Your task to perform on an android device: Open network settings Image 0: 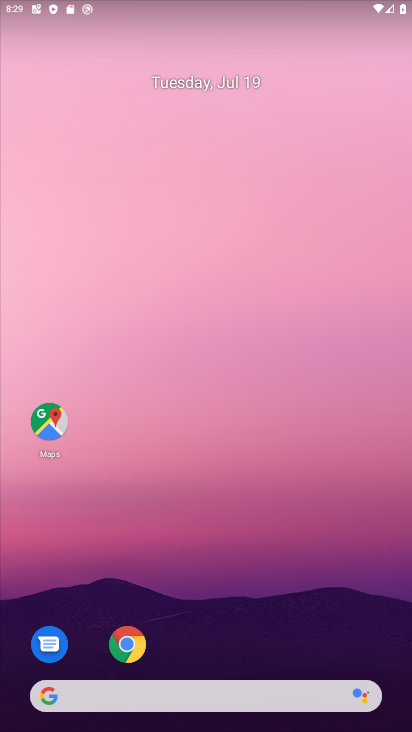
Step 0: press home button
Your task to perform on an android device: Open network settings Image 1: 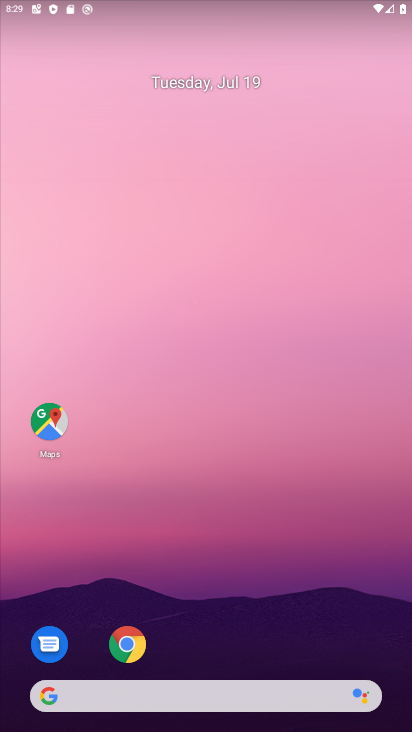
Step 1: click (232, 269)
Your task to perform on an android device: Open network settings Image 2: 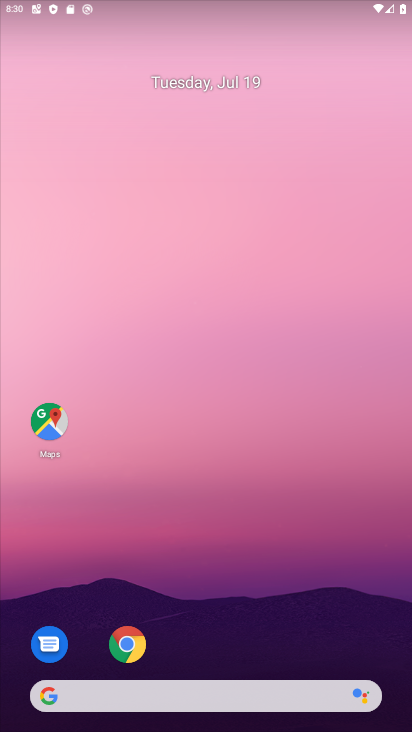
Step 2: drag from (189, 622) to (211, 323)
Your task to perform on an android device: Open network settings Image 3: 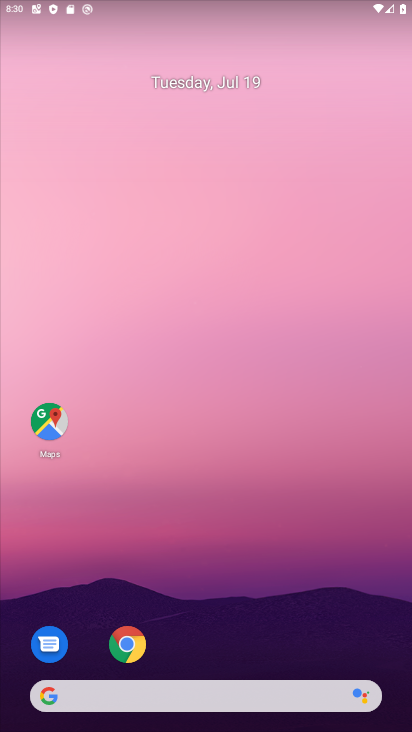
Step 3: drag from (198, 633) to (264, 114)
Your task to perform on an android device: Open network settings Image 4: 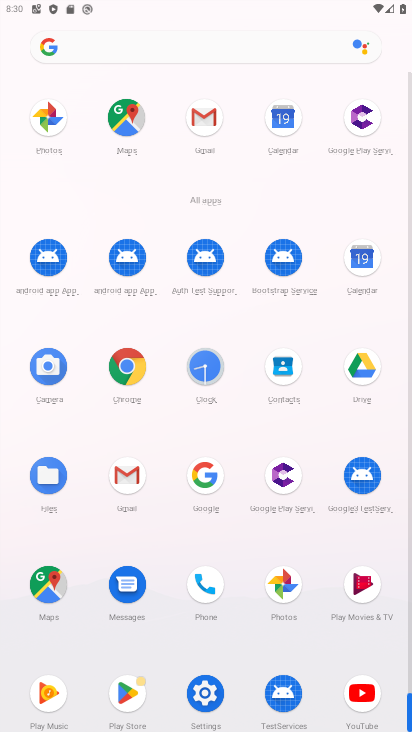
Step 4: click (199, 691)
Your task to perform on an android device: Open network settings Image 5: 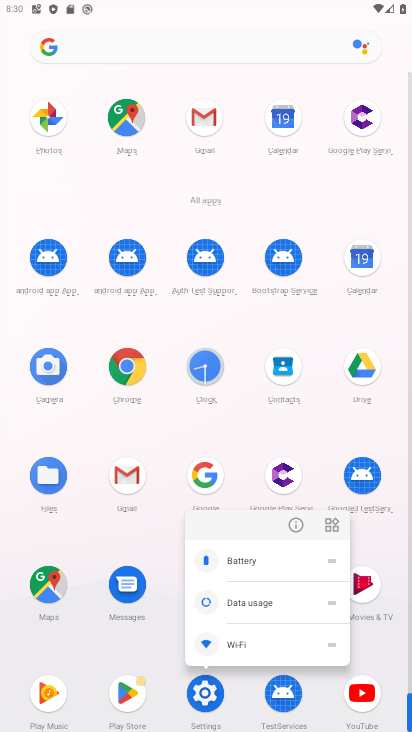
Step 5: click (292, 526)
Your task to perform on an android device: Open network settings Image 6: 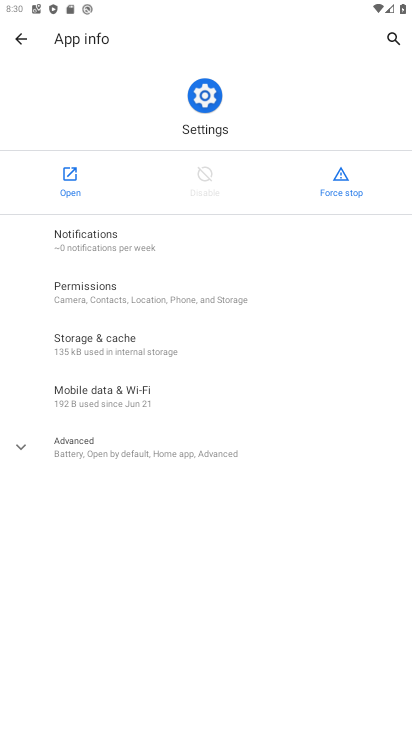
Step 6: click (81, 171)
Your task to perform on an android device: Open network settings Image 7: 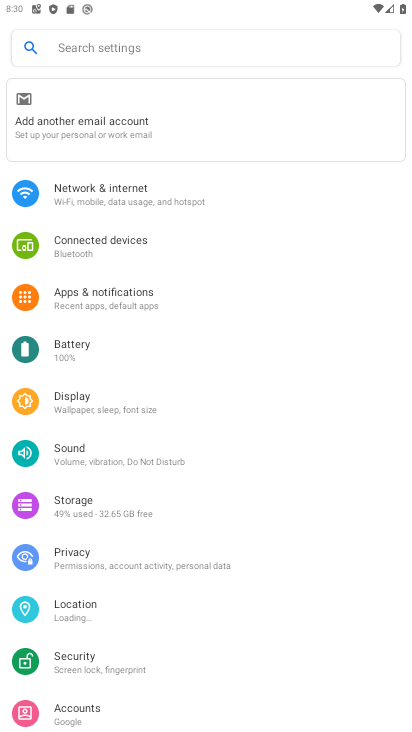
Step 7: click (129, 188)
Your task to perform on an android device: Open network settings Image 8: 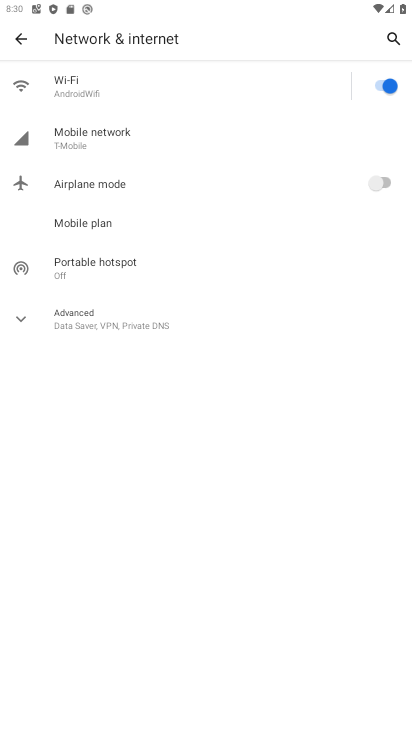
Step 8: task complete